Your task to perform on an android device: turn pop-ups on in chrome Image 0: 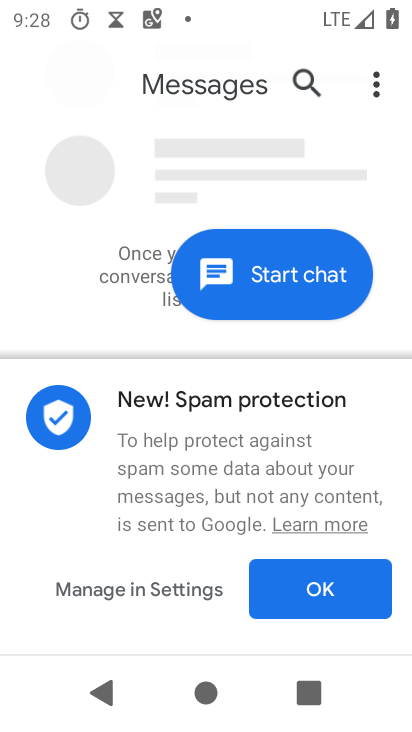
Step 0: press home button
Your task to perform on an android device: turn pop-ups on in chrome Image 1: 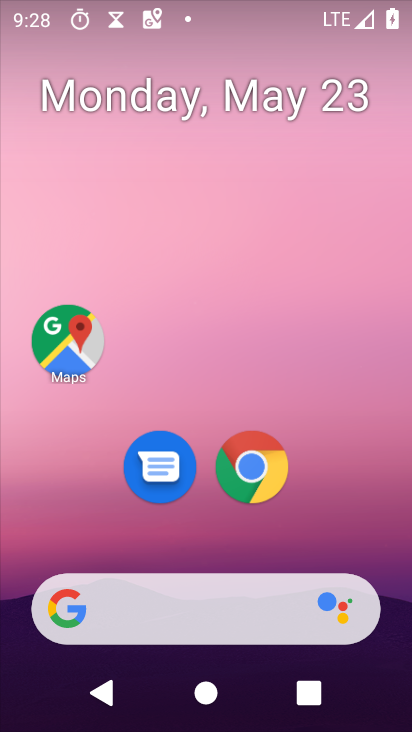
Step 1: click (265, 467)
Your task to perform on an android device: turn pop-ups on in chrome Image 2: 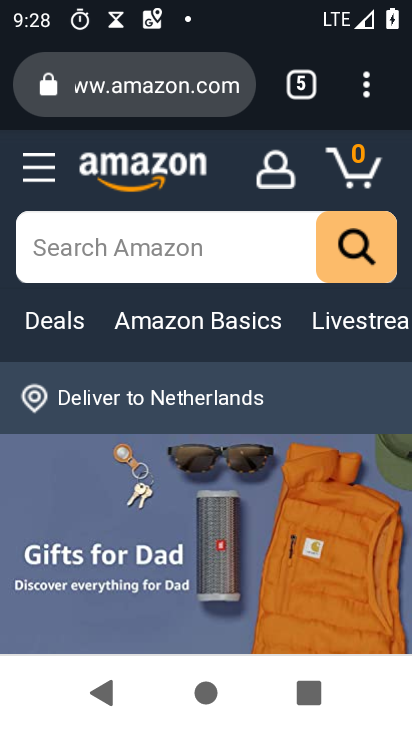
Step 2: click (379, 86)
Your task to perform on an android device: turn pop-ups on in chrome Image 3: 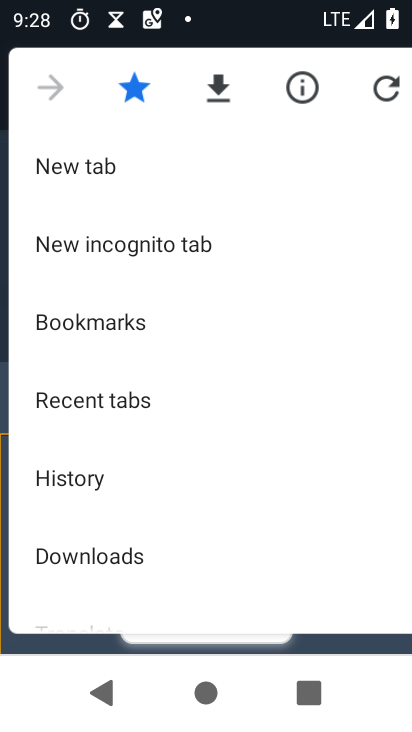
Step 3: drag from (195, 520) to (197, 202)
Your task to perform on an android device: turn pop-ups on in chrome Image 4: 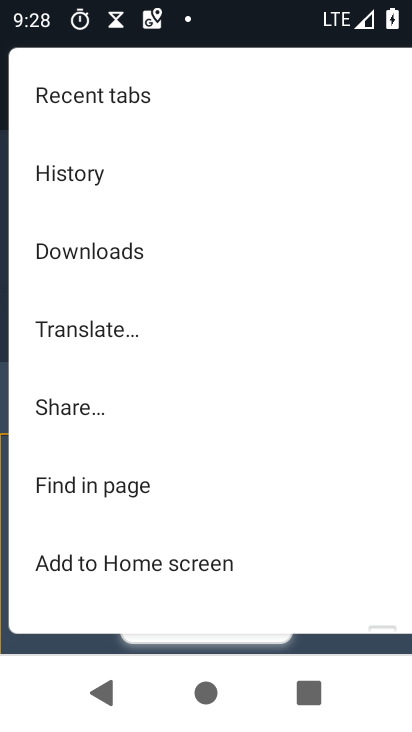
Step 4: drag from (192, 492) to (210, 138)
Your task to perform on an android device: turn pop-ups on in chrome Image 5: 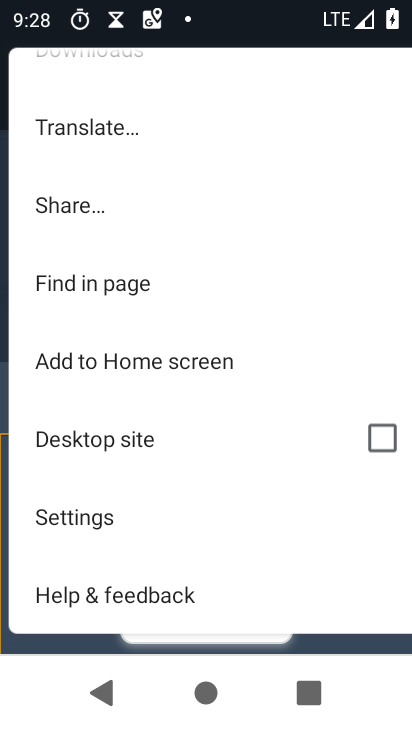
Step 5: click (140, 517)
Your task to perform on an android device: turn pop-ups on in chrome Image 6: 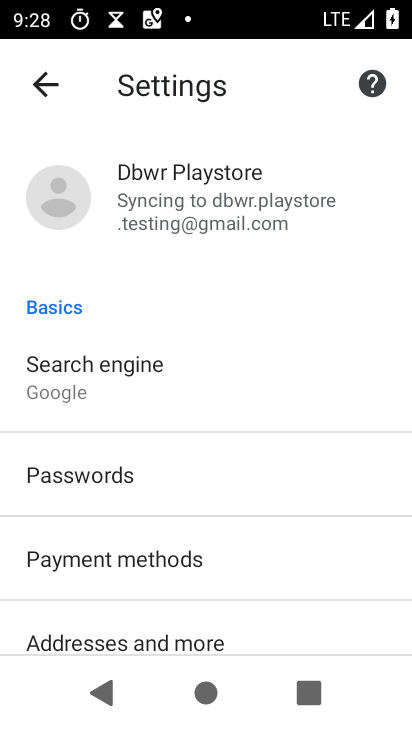
Step 6: click (187, 90)
Your task to perform on an android device: turn pop-ups on in chrome Image 7: 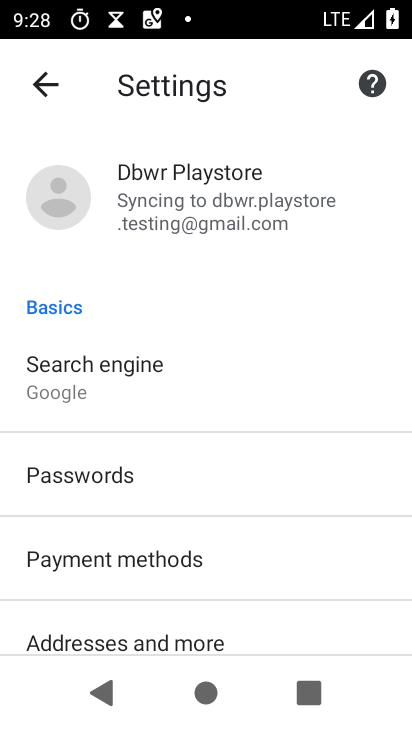
Step 7: drag from (189, 504) to (190, 147)
Your task to perform on an android device: turn pop-ups on in chrome Image 8: 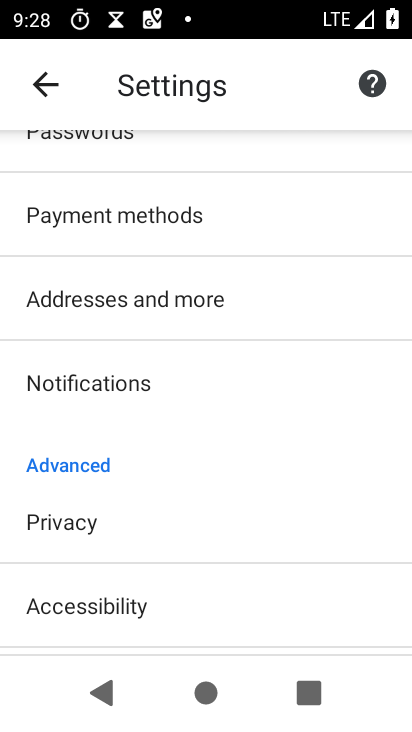
Step 8: drag from (165, 553) to (179, 189)
Your task to perform on an android device: turn pop-ups on in chrome Image 9: 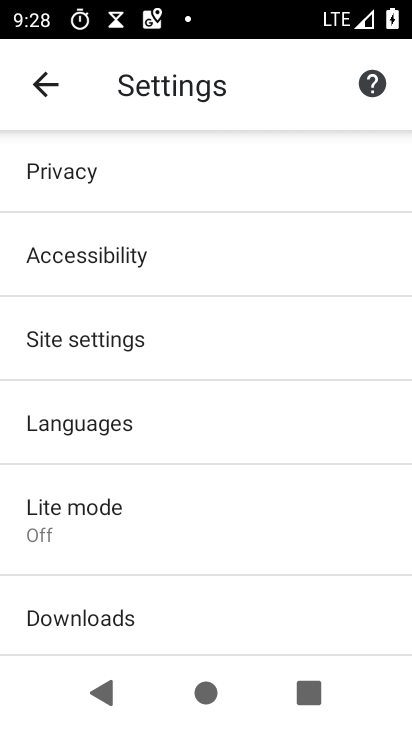
Step 9: click (133, 353)
Your task to perform on an android device: turn pop-ups on in chrome Image 10: 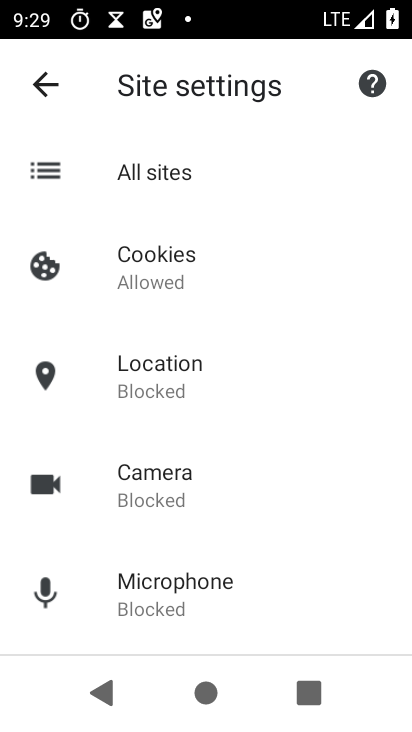
Step 10: drag from (244, 552) to (209, 145)
Your task to perform on an android device: turn pop-ups on in chrome Image 11: 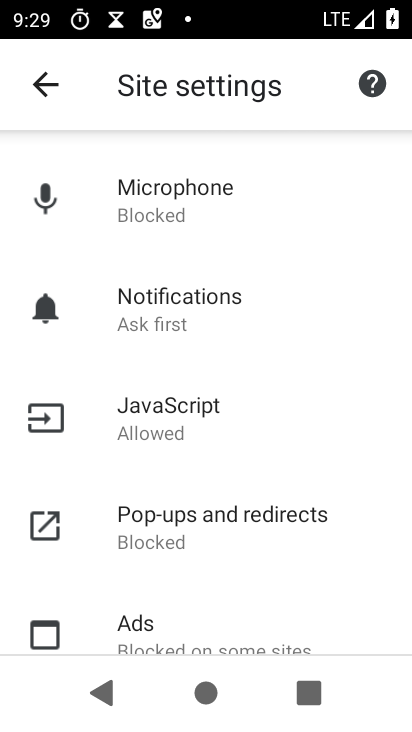
Step 11: click (244, 530)
Your task to perform on an android device: turn pop-ups on in chrome Image 12: 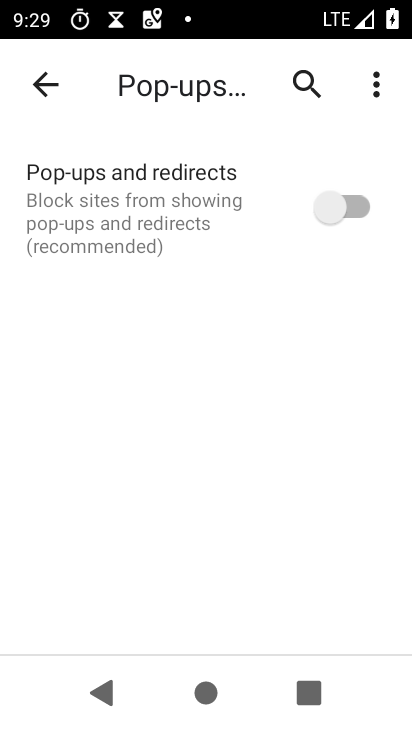
Step 12: click (238, 525)
Your task to perform on an android device: turn pop-ups on in chrome Image 13: 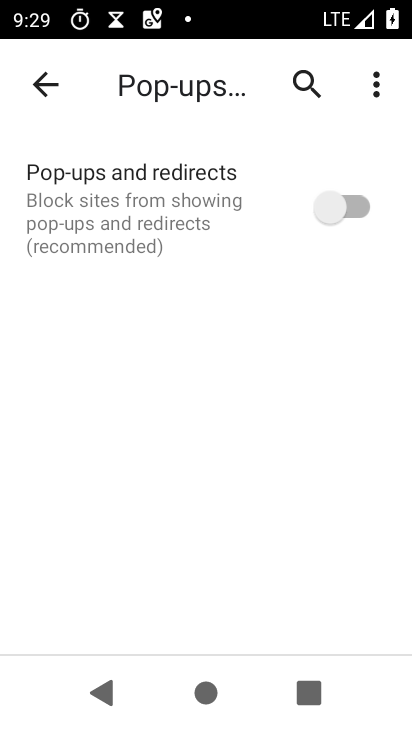
Step 13: click (339, 228)
Your task to perform on an android device: turn pop-ups on in chrome Image 14: 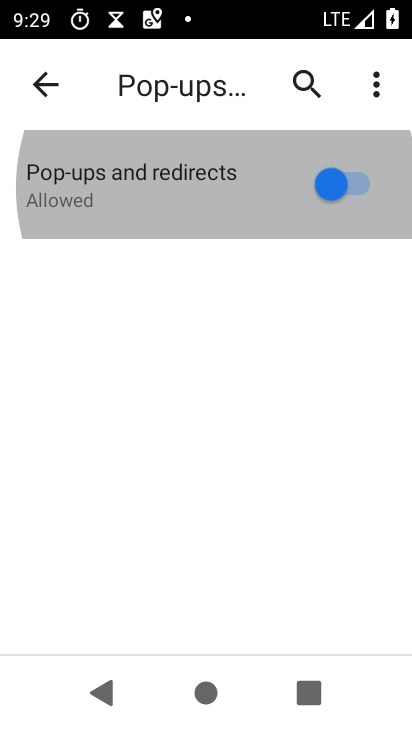
Step 14: click (332, 206)
Your task to perform on an android device: turn pop-ups on in chrome Image 15: 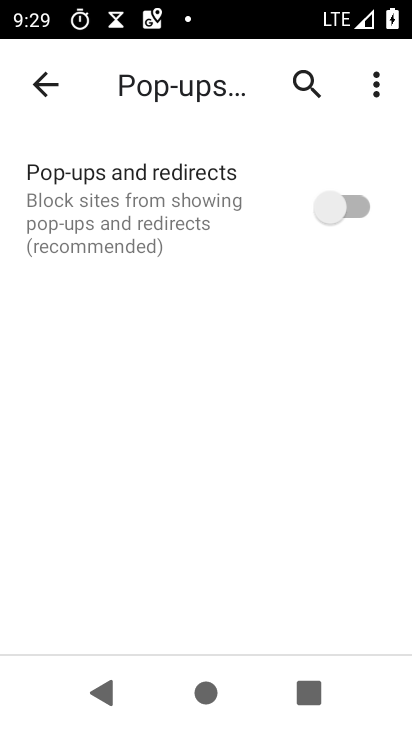
Step 15: task complete